Your task to perform on an android device: What's the weather going to be this weekend? Image 0: 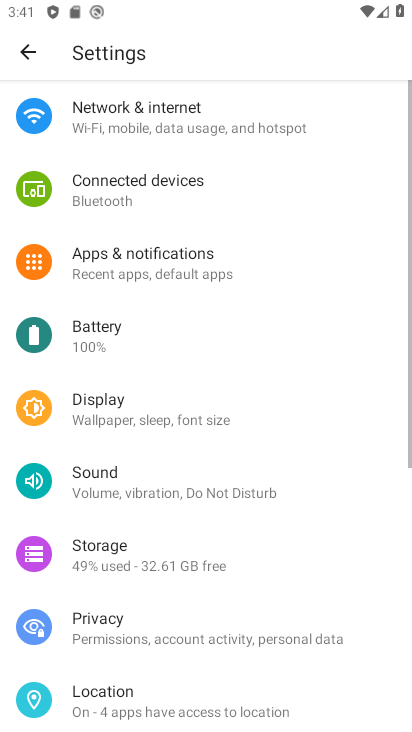
Step 0: press home button
Your task to perform on an android device: What's the weather going to be this weekend? Image 1: 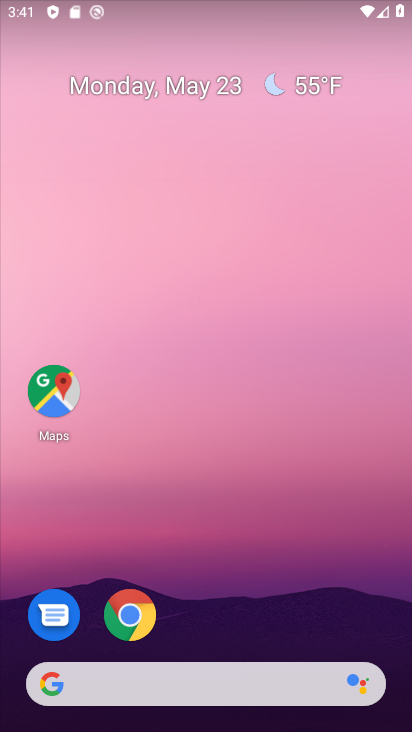
Step 1: click (290, 691)
Your task to perform on an android device: What's the weather going to be this weekend? Image 2: 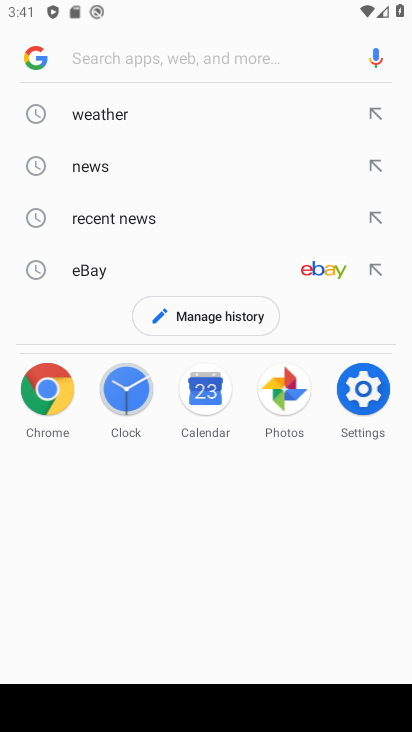
Step 2: click (114, 119)
Your task to perform on an android device: What's the weather going to be this weekend? Image 3: 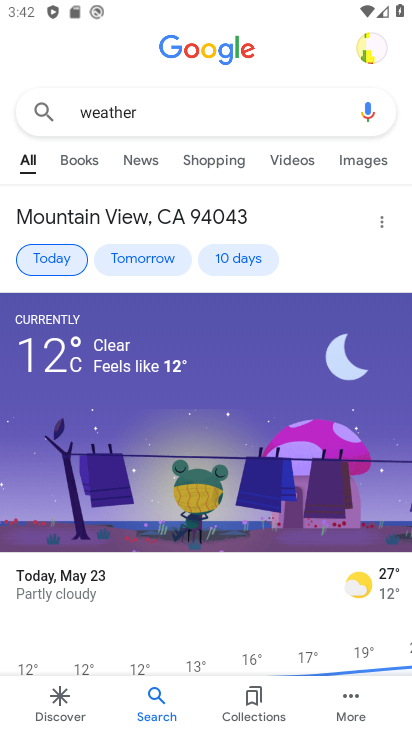
Step 3: click (253, 267)
Your task to perform on an android device: What's the weather going to be this weekend? Image 4: 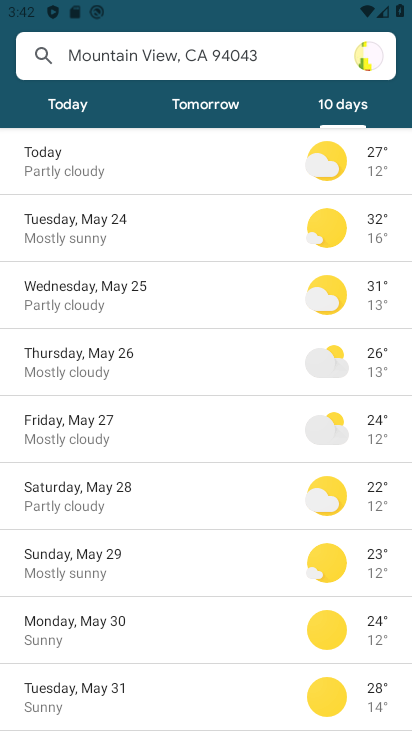
Step 4: task complete